Your task to perform on an android device: Empty the shopping cart on target. Image 0: 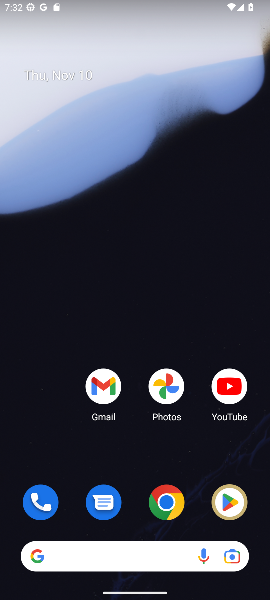
Step 0: click (124, 548)
Your task to perform on an android device: Empty the shopping cart on target. Image 1: 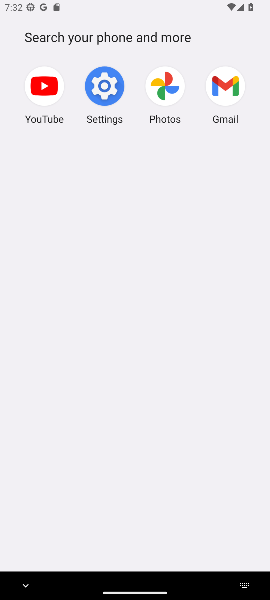
Step 1: press home button
Your task to perform on an android device: Empty the shopping cart on target. Image 2: 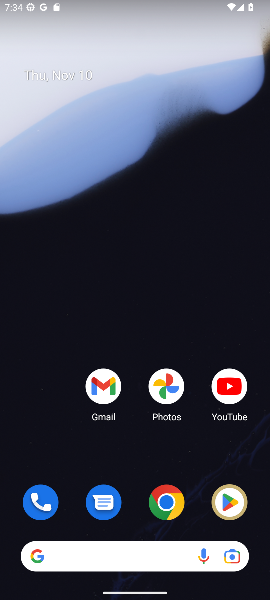
Step 2: drag from (126, 459) to (30, 65)
Your task to perform on an android device: Empty the shopping cart on target. Image 3: 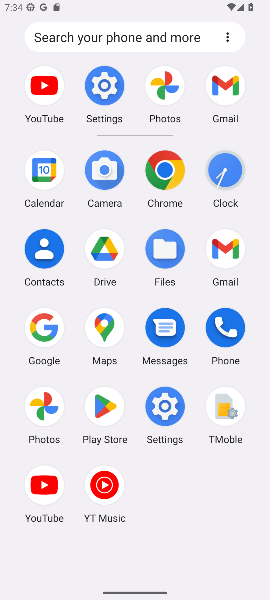
Step 3: click (44, 334)
Your task to perform on an android device: Empty the shopping cart on target. Image 4: 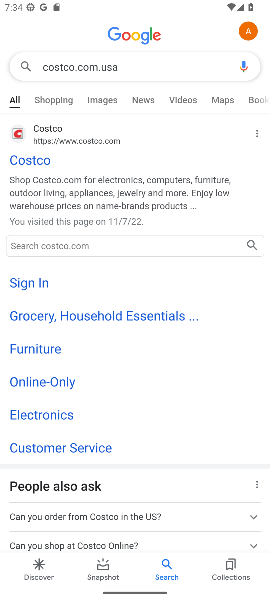
Step 4: click (151, 54)
Your task to perform on an android device: Empty the shopping cart on target. Image 5: 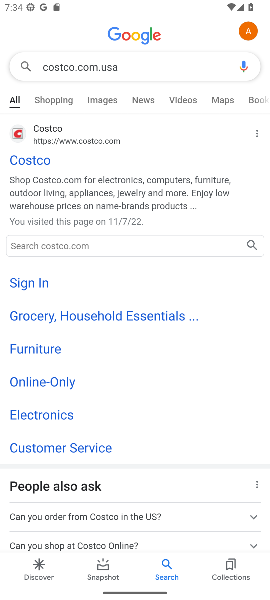
Step 5: click (151, 54)
Your task to perform on an android device: Empty the shopping cart on target. Image 6: 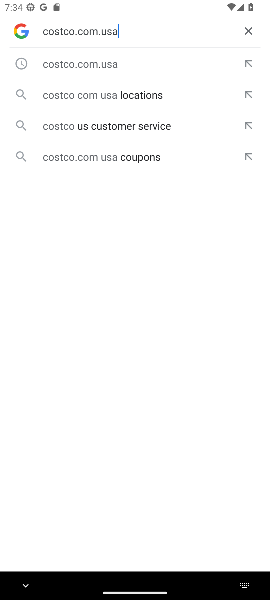
Step 6: click (246, 31)
Your task to perform on an android device: Empty the shopping cart on target. Image 7: 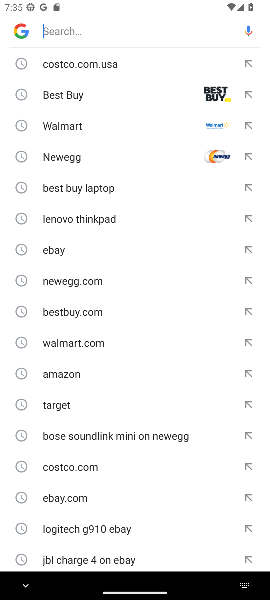
Step 7: type "target"
Your task to perform on an android device: Empty the shopping cart on target. Image 8: 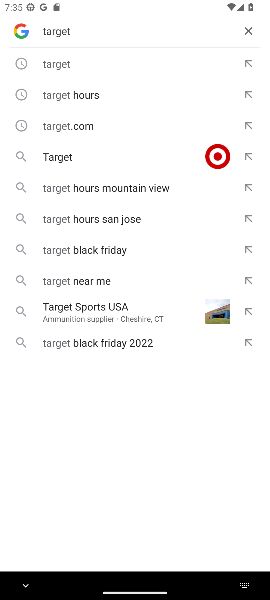
Step 8: click (98, 163)
Your task to perform on an android device: Empty the shopping cart on target. Image 9: 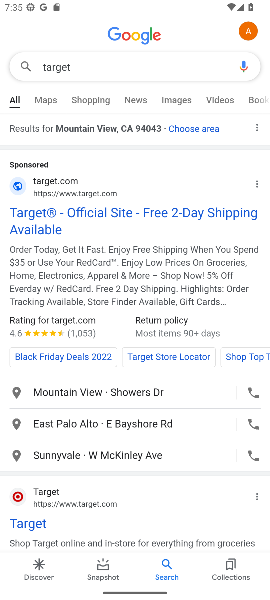
Step 9: click (35, 504)
Your task to perform on an android device: Empty the shopping cart on target. Image 10: 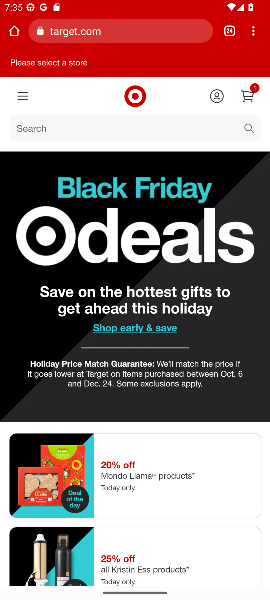
Step 10: click (97, 132)
Your task to perform on an android device: Empty the shopping cart on target. Image 11: 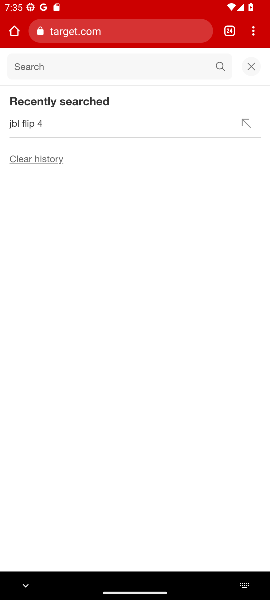
Step 11: click (249, 65)
Your task to perform on an android device: Empty the shopping cart on target. Image 12: 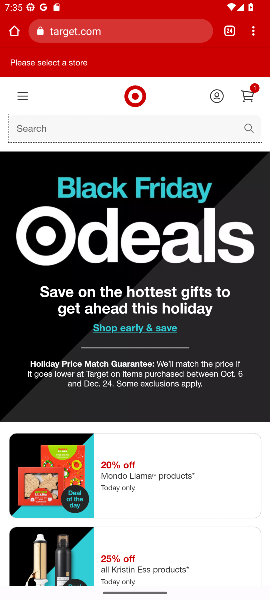
Step 12: click (252, 92)
Your task to perform on an android device: Empty the shopping cart on target. Image 13: 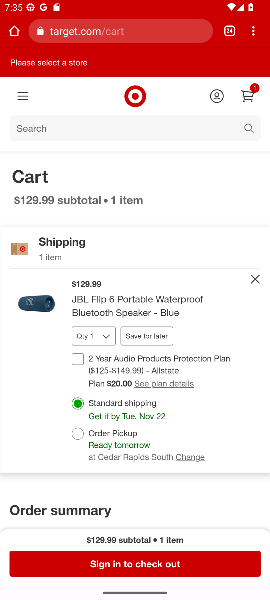
Step 13: click (258, 280)
Your task to perform on an android device: Empty the shopping cart on target. Image 14: 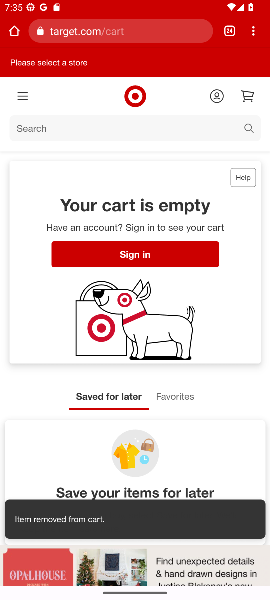
Step 14: task complete